Your task to perform on an android device: check google app version Image 0: 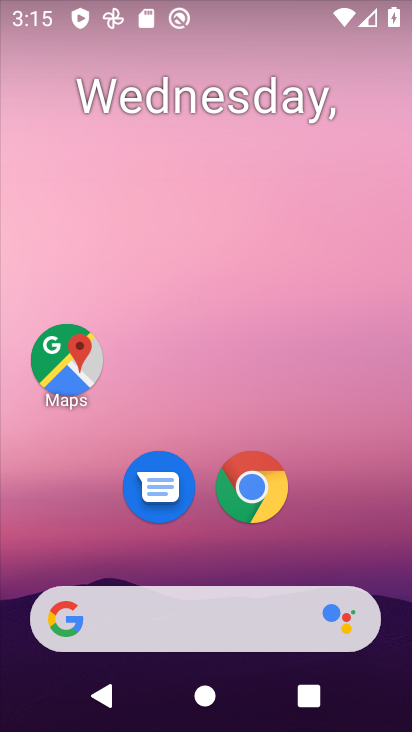
Step 0: drag from (379, 557) to (353, 185)
Your task to perform on an android device: check google app version Image 1: 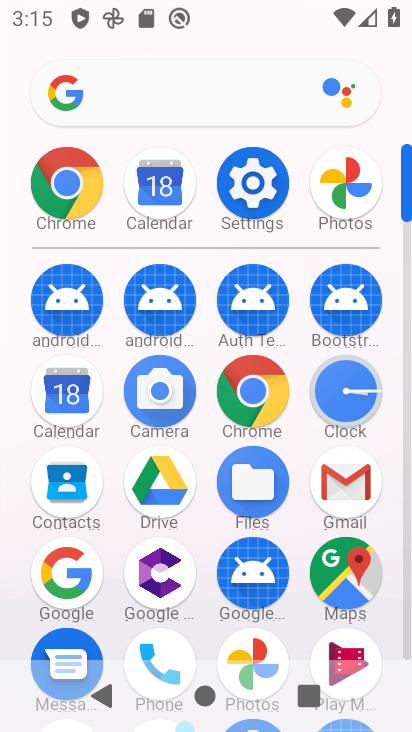
Step 1: drag from (392, 503) to (403, 252)
Your task to perform on an android device: check google app version Image 2: 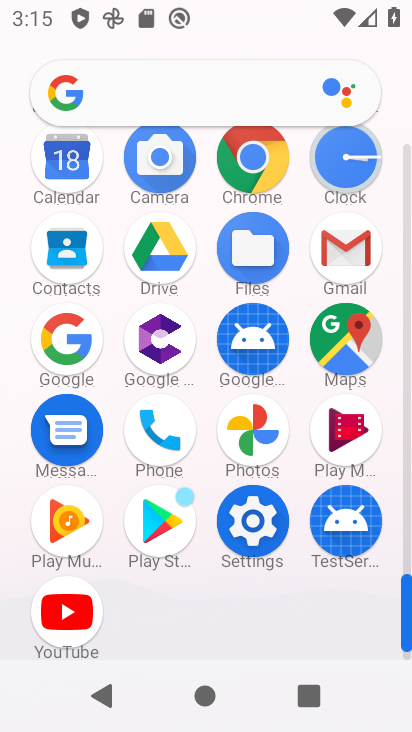
Step 2: click (77, 349)
Your task to perform on an android device: check google app version Image 3: 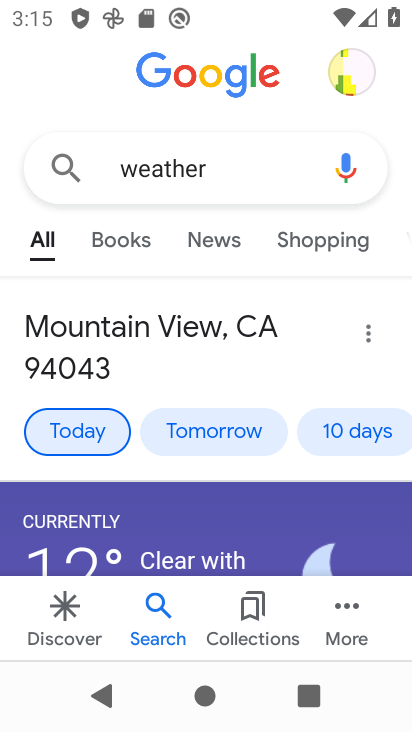
Step 3: click (346, 616)
Your task to perform on an android device: check google app version Image 4: 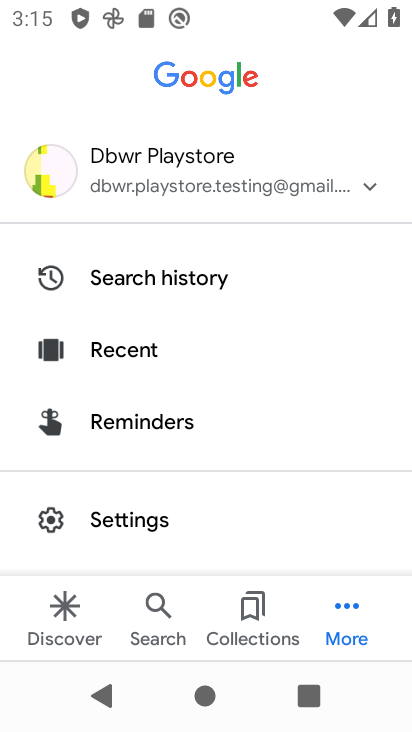
Step 4: click (184, 529)
Your task to perform on an android device: check google app version Image 5: 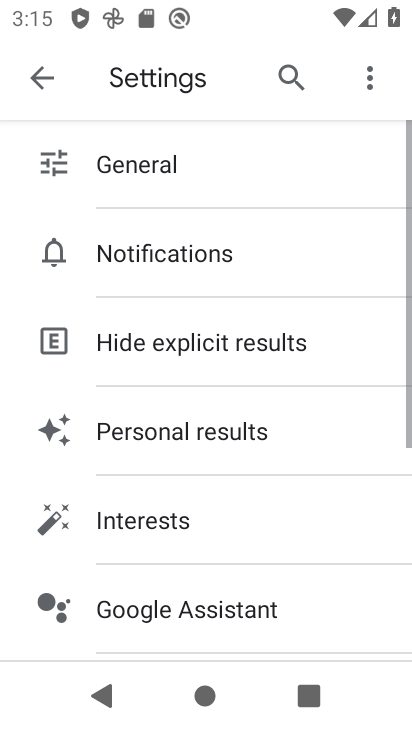
Step 5: drag from (266, 549) to (277, 417)
Your task to perform on an android device: check google app version Image 6: 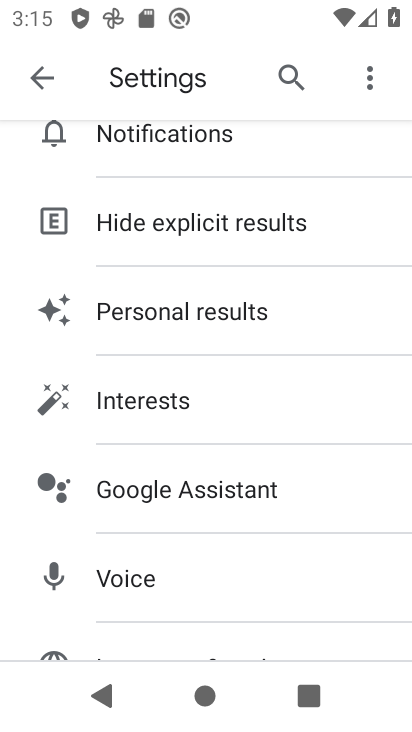
Step 6: drag from (300, 617) to (307, 493)
Your task to perform on an android device: check google app version Image 7: 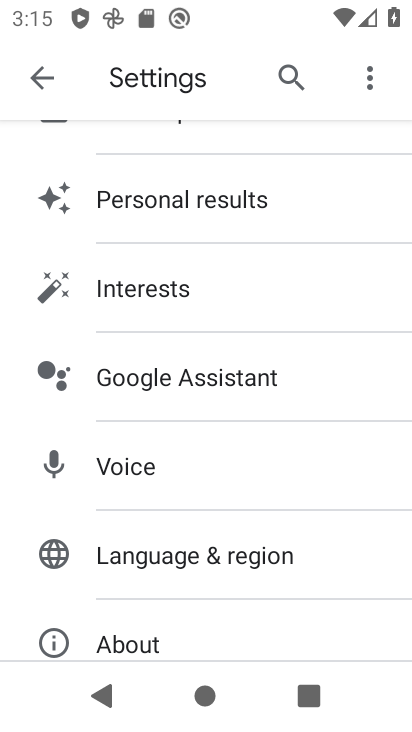
Step 7: drag from (298, 616) to (298, 502)
Your task to perform on an android device: check google app version Image 8: 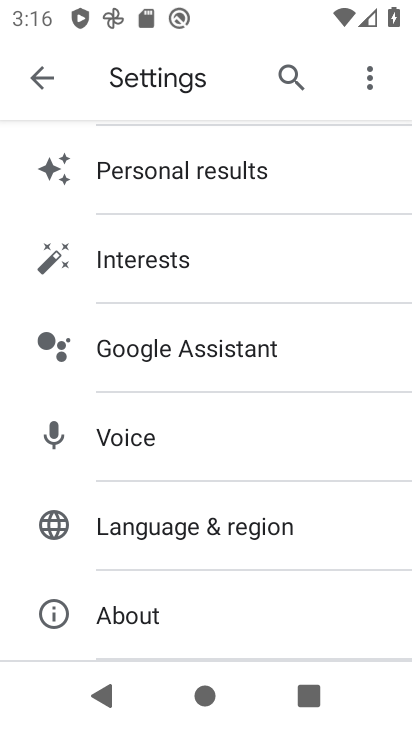
Step 8: click (145, 628)
Your task to perform on an android device: check google app version Image 9: 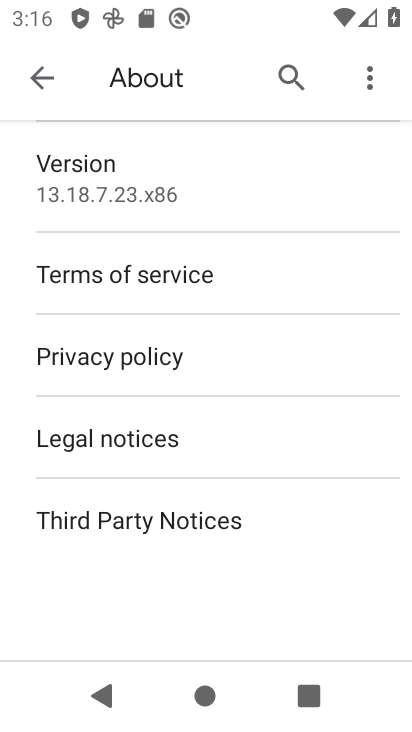
Step 9: task complete